Your task to perform on an android device: check storage Image 0: 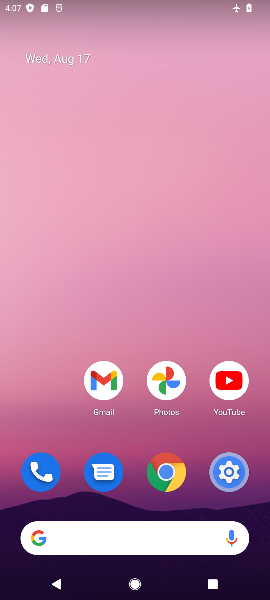
Step 0: click (228, 468)
Your task to perform on an android device: check storage Image 1: 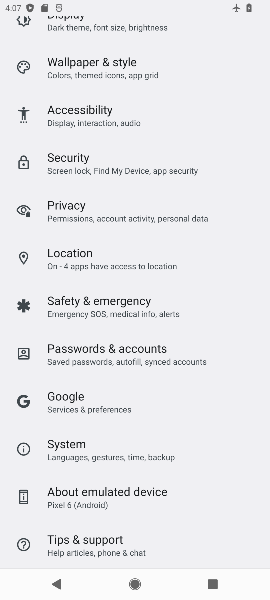
Step 1: drag from (112, 164) to (121, 376)
Your task to perform on an android device: check storage Image 2: 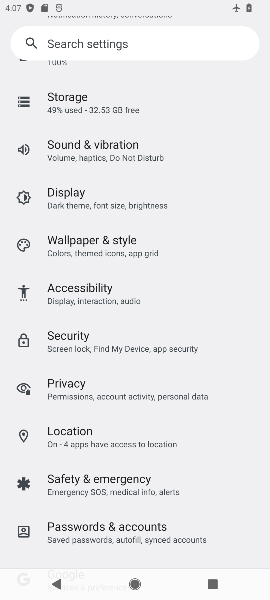
Step 2: click (77, 104)
Your task to perform on an android device: check storage Image 3: 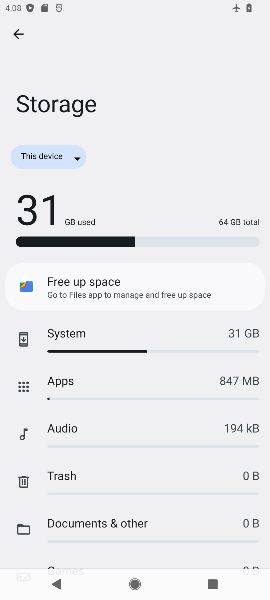
Step 3: task complete